Your task to perform on an android device: Search for Mexican restaurants on Maps Image 0: 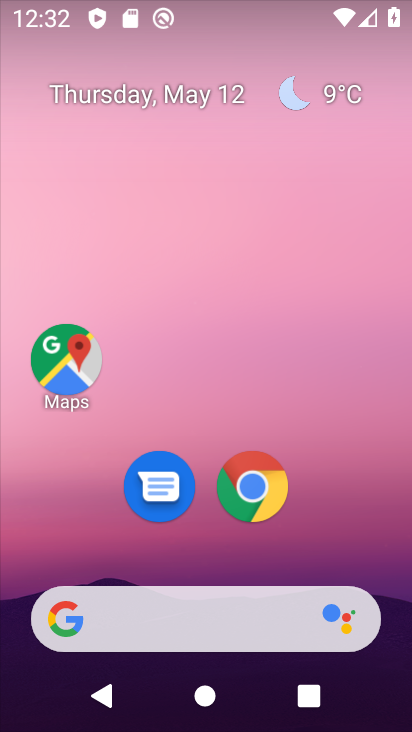
Step 0: click (46, 368)
Your task to perform on an android device: Search for Mexican restaurants on Maps Image 1: 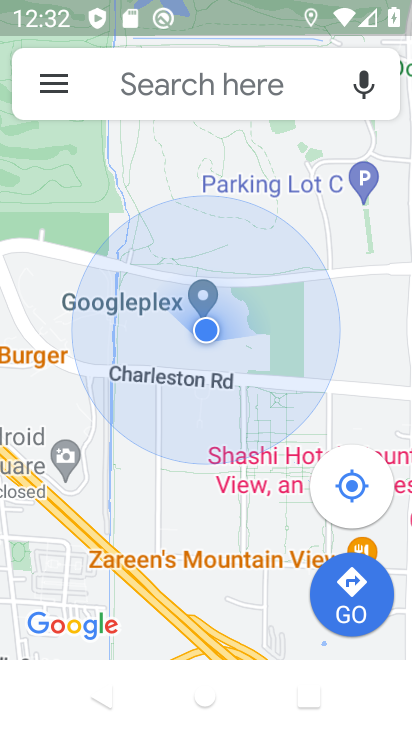
Step 1: task complete